Your task to perform on an android device: Show me recent news Image 0: 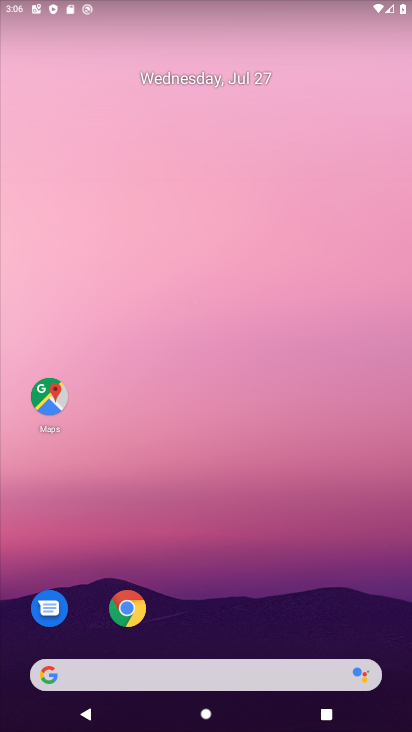
Step 0: drag from (395, 686) to (329, 200)
Your task to perform on an android device: Show me recent news Image 1: 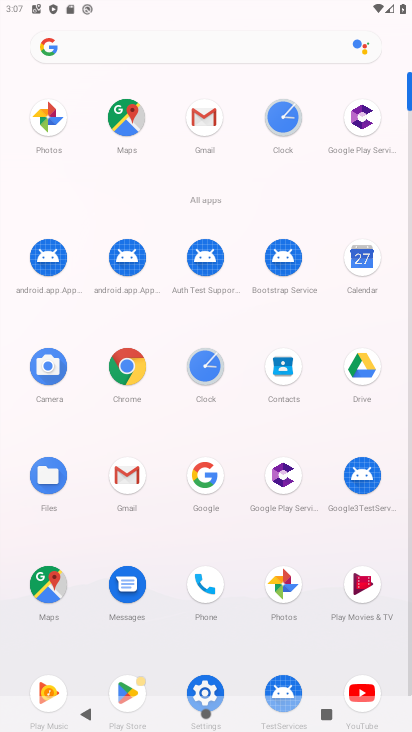
Step 1: click (197, 485)
Your task to perform on an android device: Show me recent news Image 2: 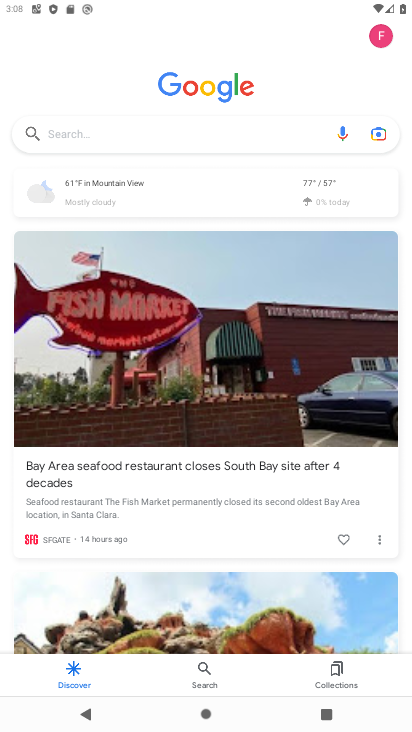
Step 2: task complete